Your task to perform on an android device: turn off javascript in the chrome app Image 0: 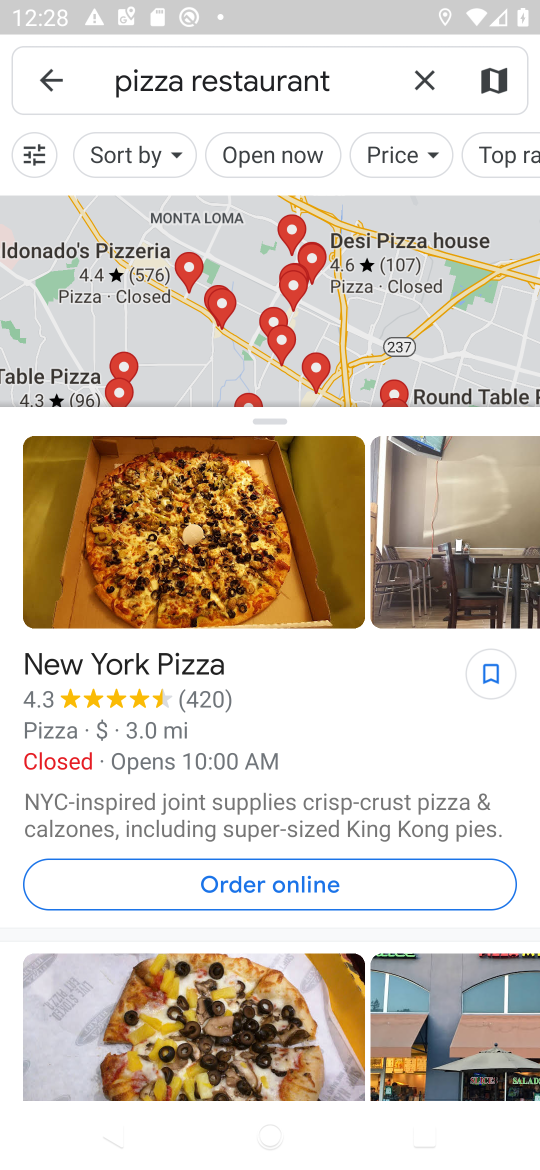
Step 0: press home button
Your task to perform on an android device: turn off javascript in the chrome app Image 1: 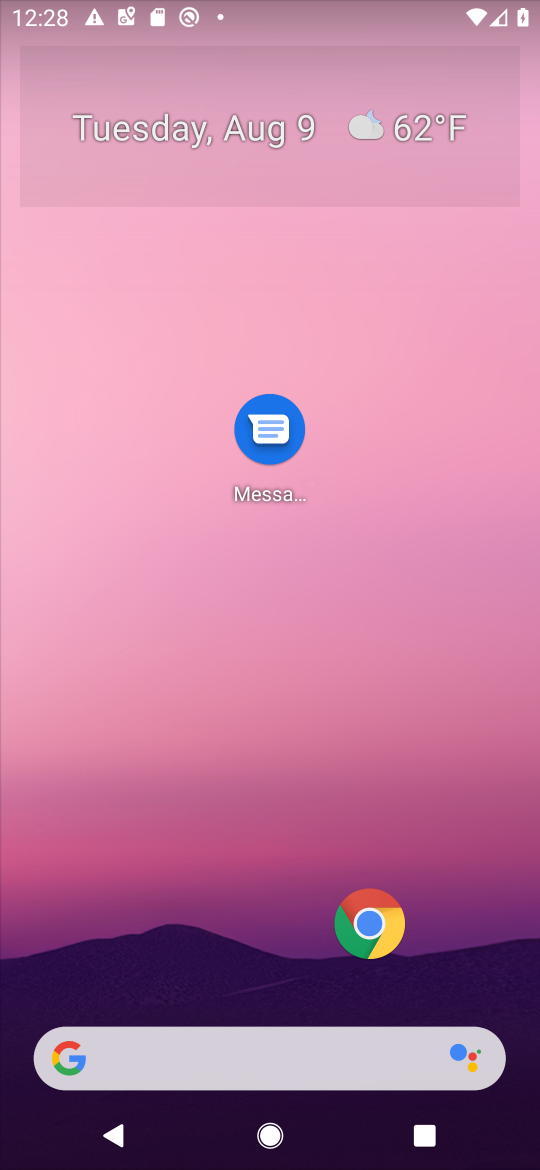
Step 1: click (345, 900)
Your task to perform on an android device: turn off javascript in the chrome app Image 2: 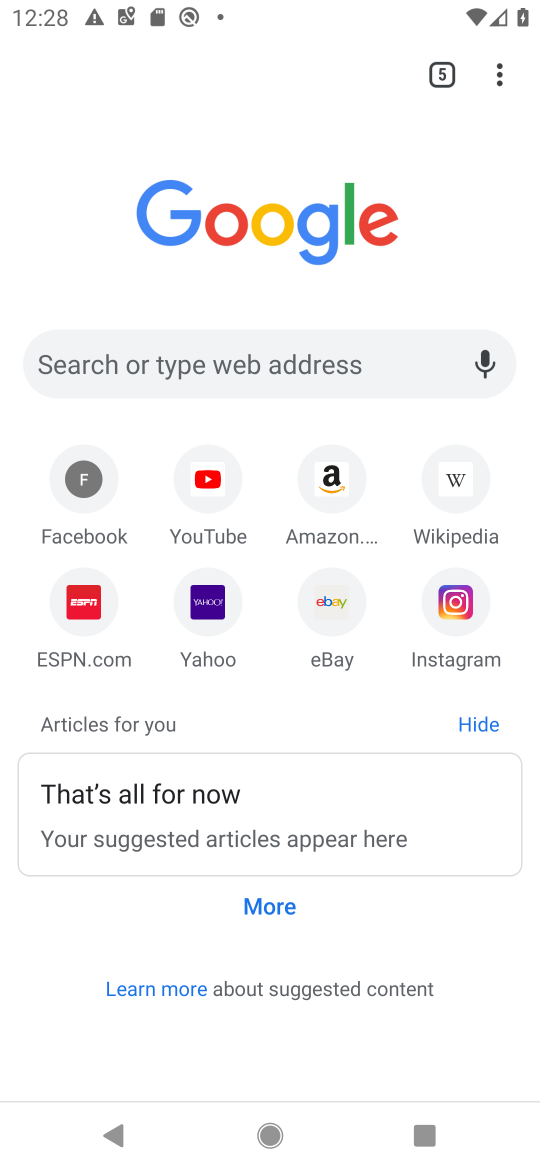
Step 2: click (502, 80)
Your task to perform on an android device: turn off javascript in the chrome app Image 3: 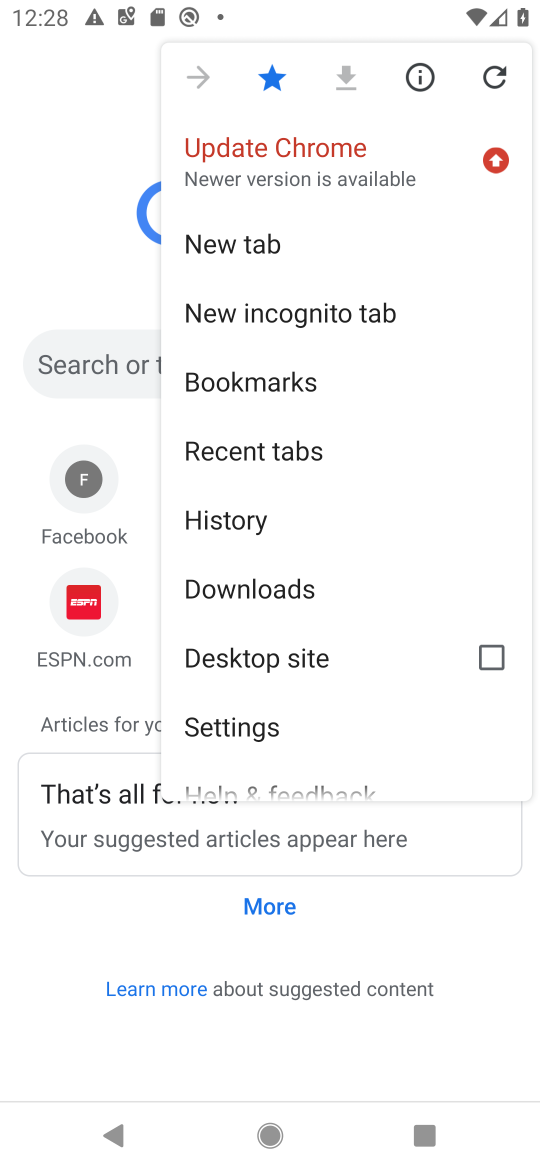
Step 3: click (225, 740)
Your task to perform on an android device: turn off javascript in the chrome app Image 4: 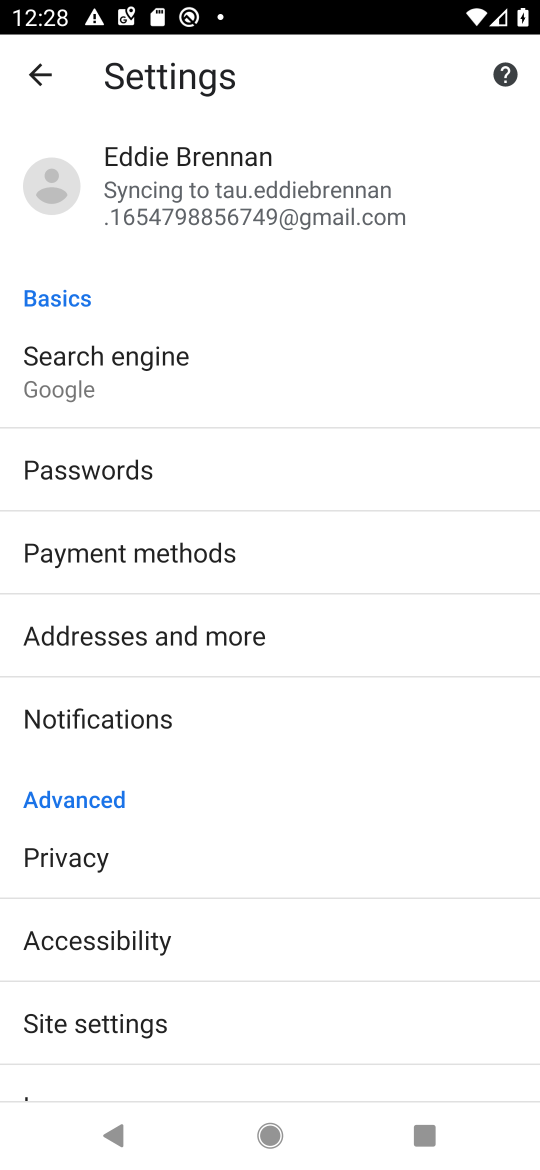
Step 4: drag from (382, 997) to (450, 342)
Your task to perform on an android device: turn off javascript in the chrome app Image 5: 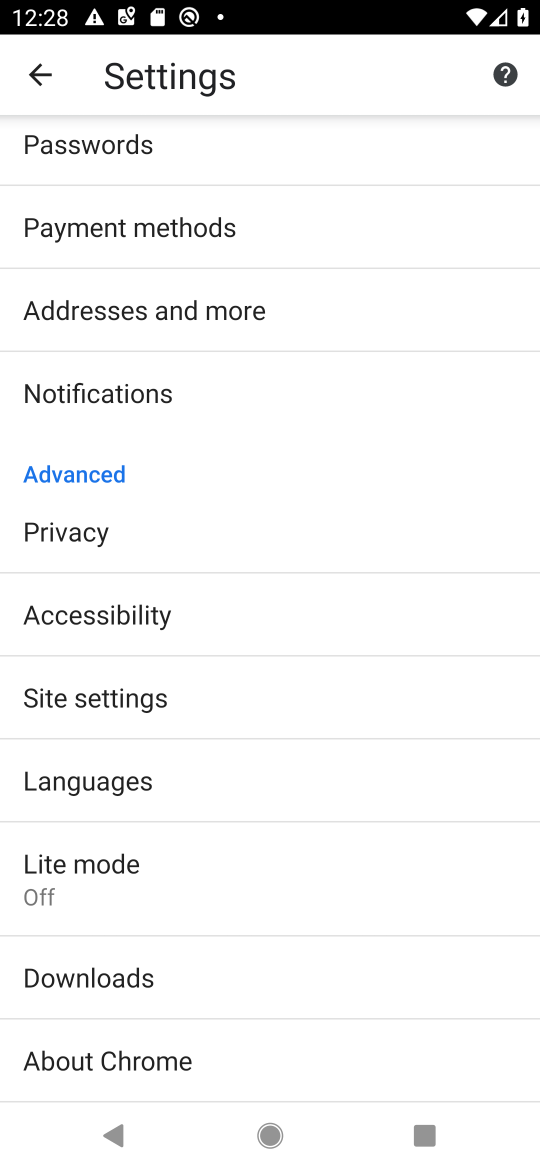
Step 5: click (93, 697)
Your task to perform on an android device: turn off javascript in the chrome app Image 6: 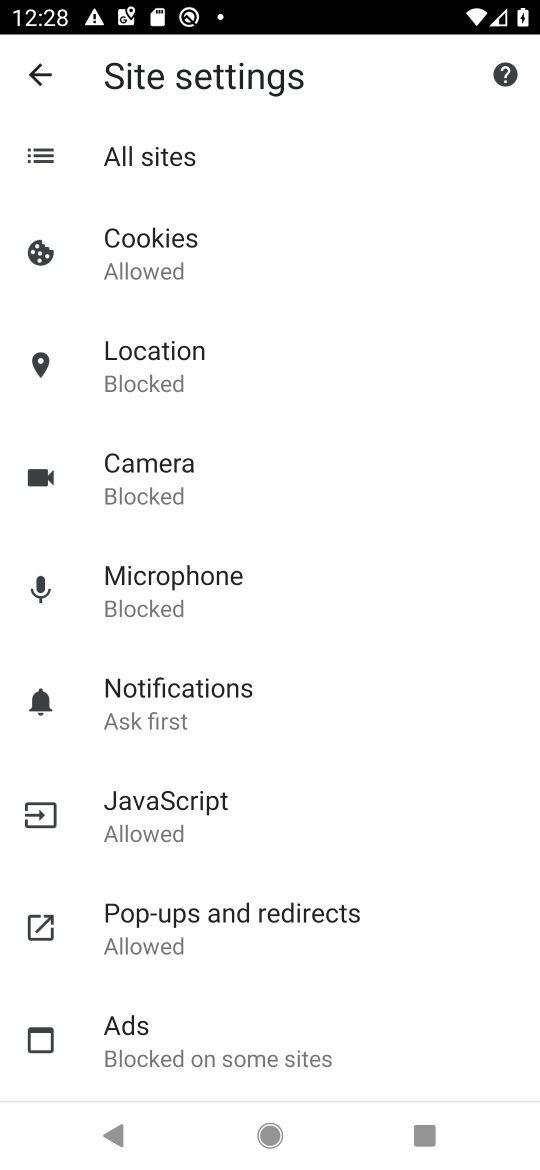
Step 6: click (140, 808)
Your task to perform on an android device: turn off javascript in the chrome app Image 7: 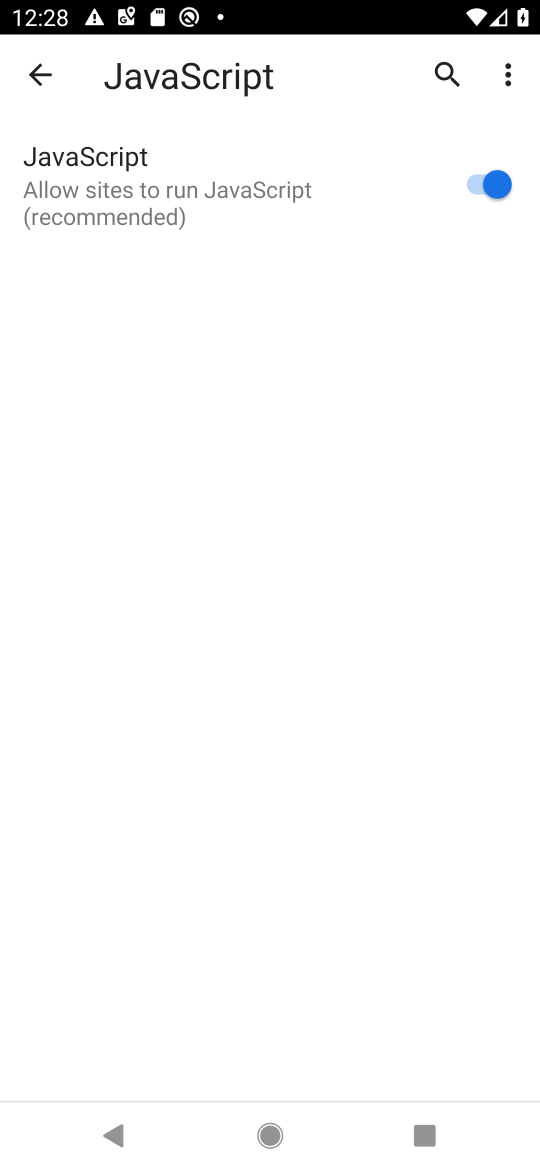
Step 7: task complete